Your task to perform on an android device: turn on bluetooth scan Image 0: 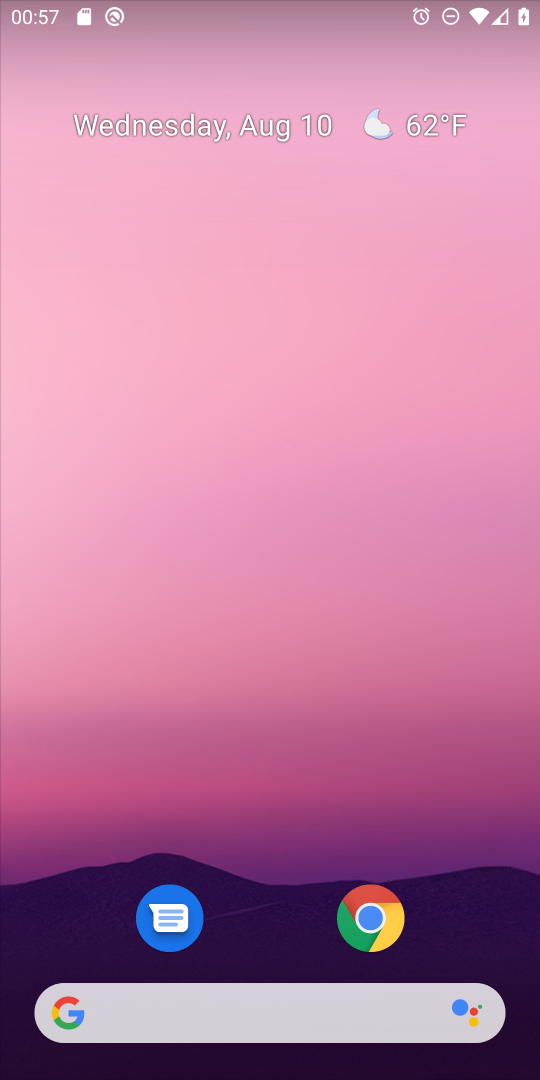
Step 0: drag from (245, 750) to (240, 151)
Your task to perform on an android device: turn on bluetooth scan Image 1: 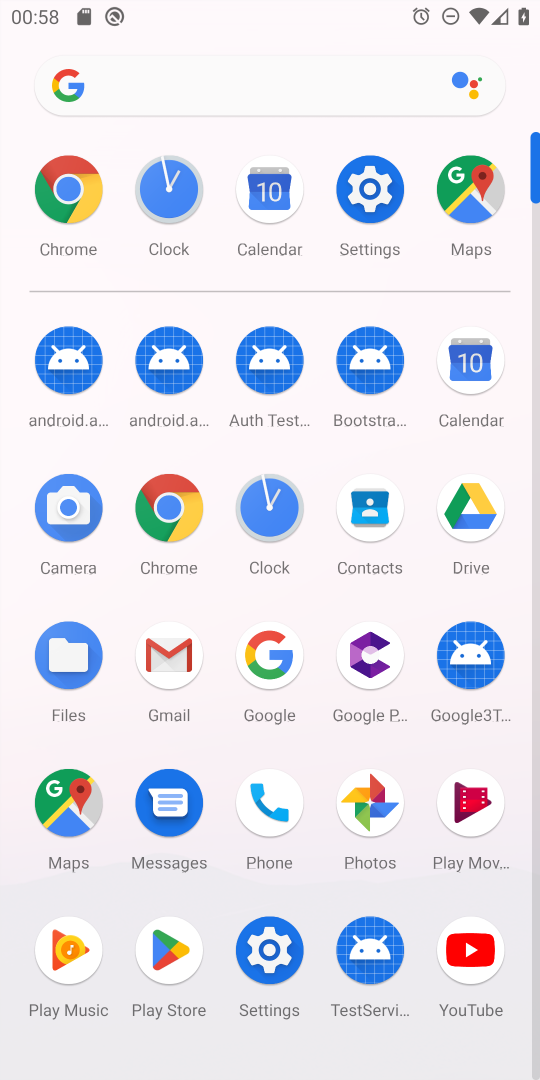
Step 1: click (274, 946)
Your task to perform on an android device: turn on bluetooth scan Image 2: 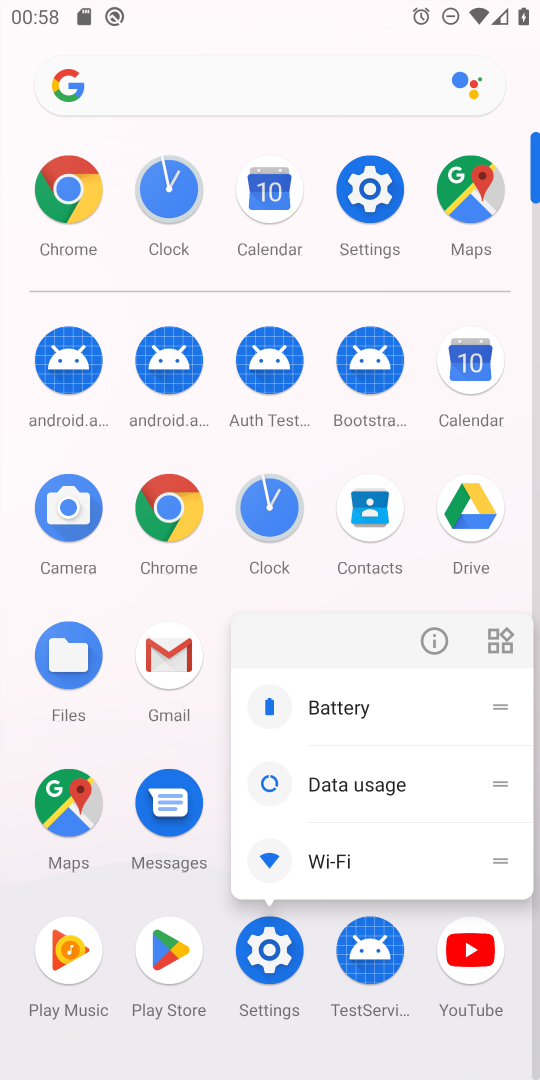
Step 2: click (274, 946)
Your task to perform on an android device: turn on bluetooth scan Image 3: 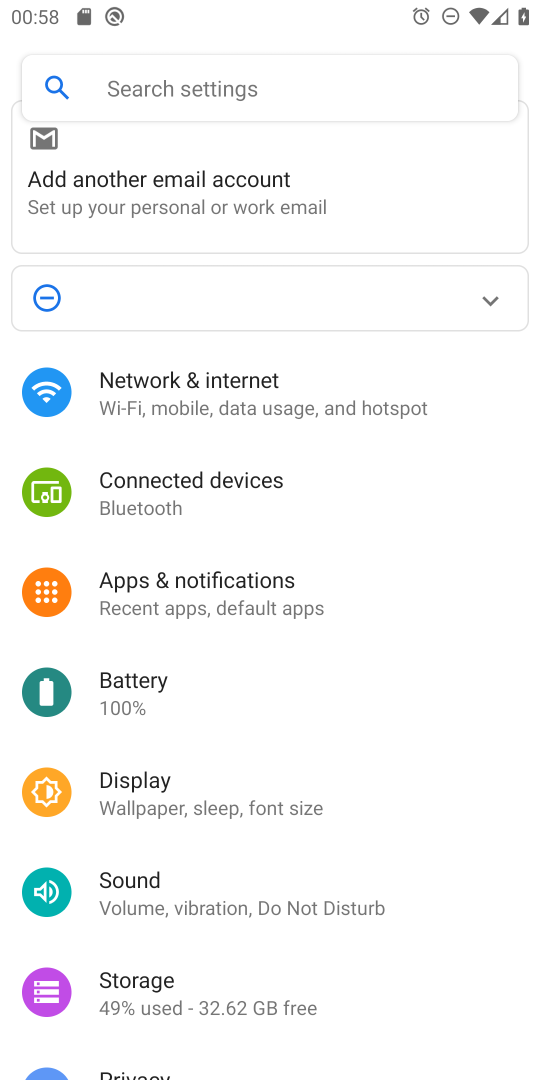
Step 3: drag from (296, 959) to (380, 486)
Your task to perform on an android device: turn on bluetooth scan Image 4: 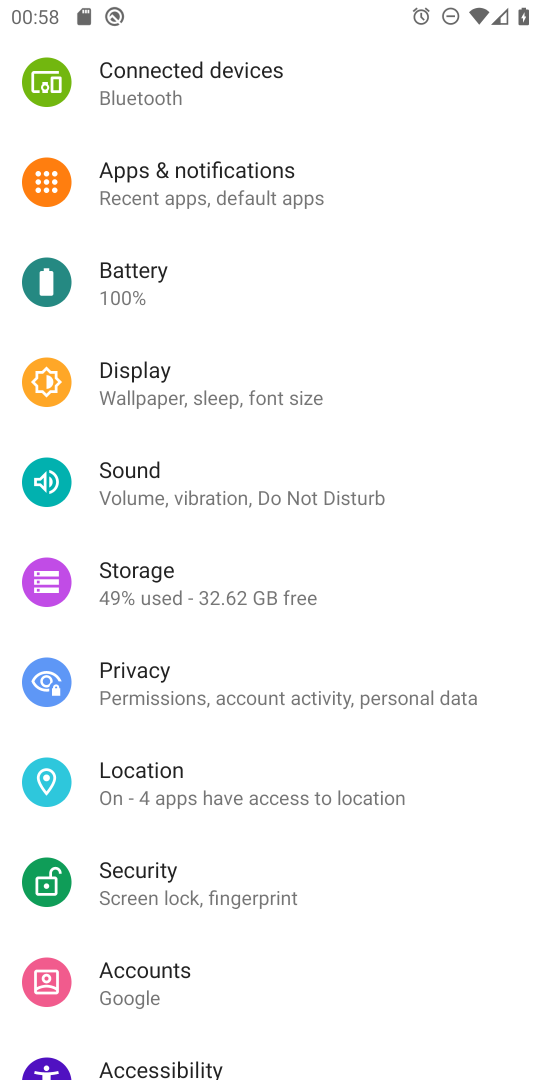
Step 4: click (111, 766)
Your task to perform on an android device: turn on bluetooth scan Image 5: 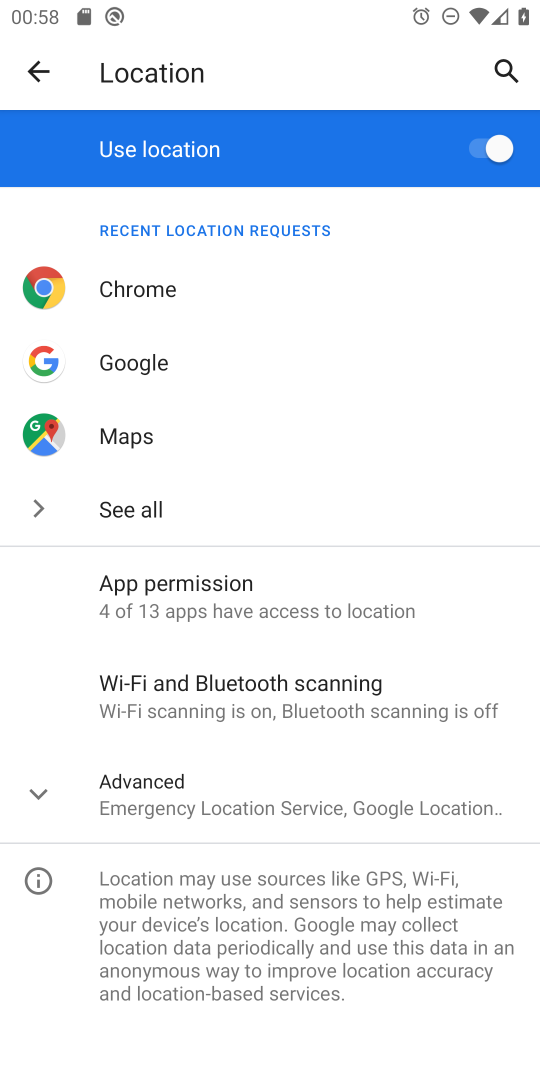
Step 5: click (224, 699)
Your task to perform on an android device: turn on bluetooth scan Image 6: 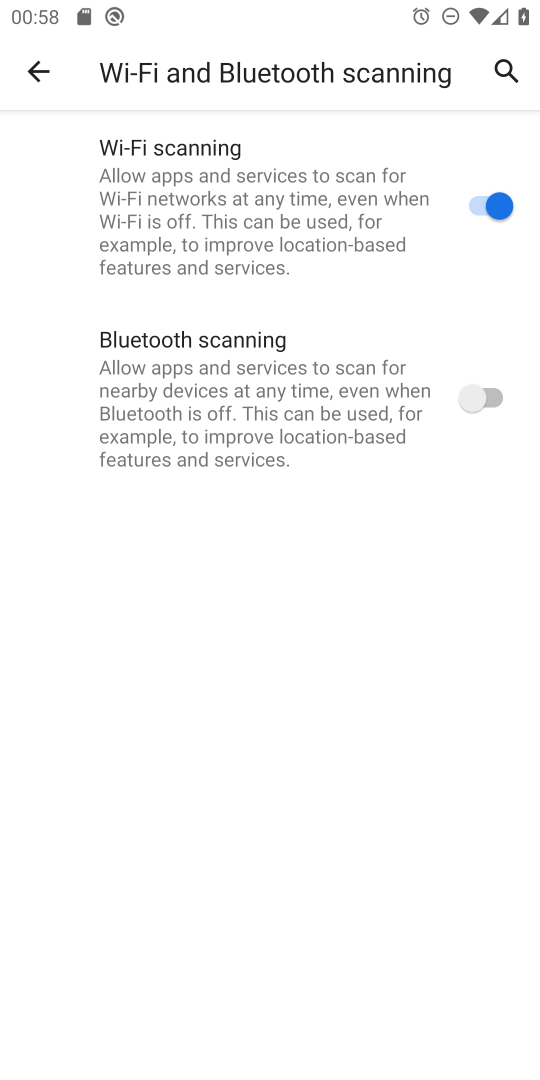
Step 6: click (471, 387)
Your task to perform on an android device: turn on bluetooth scan Image 7: 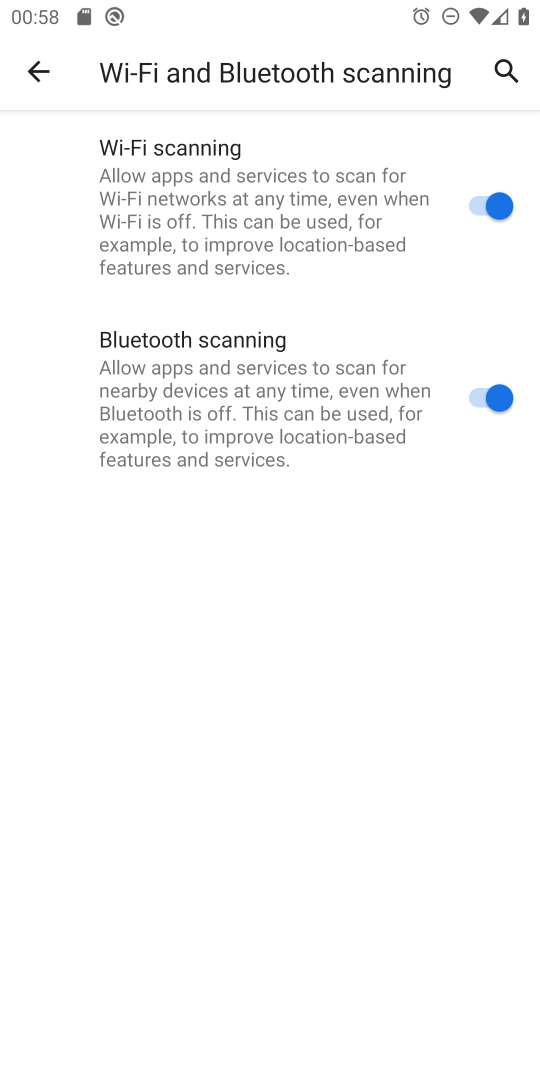
Step 7: task complete